Your task to perform on an android device: Open the Play Movies app and select the watchlist tab. Image 0: 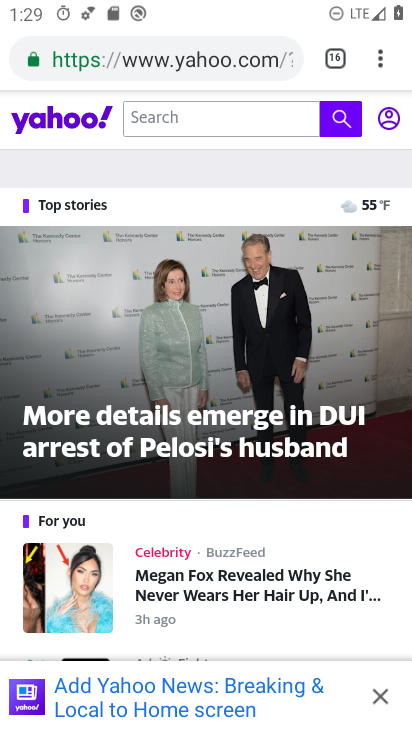
Step 0: press home button
Your task to perform on an android device: Open the Play Movies app and select the watchlist tab. Image 1: 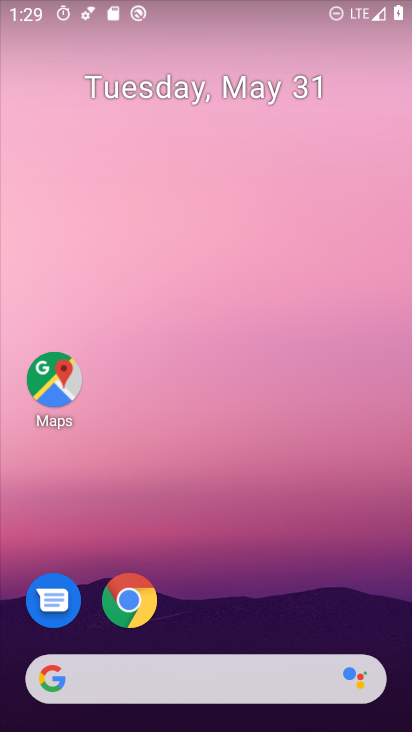
Step 1: drag from (245, 725) to (244, 210)
Your task to perform on an android device: Open the Play Movies app and select the watchlist tab. Image 2: 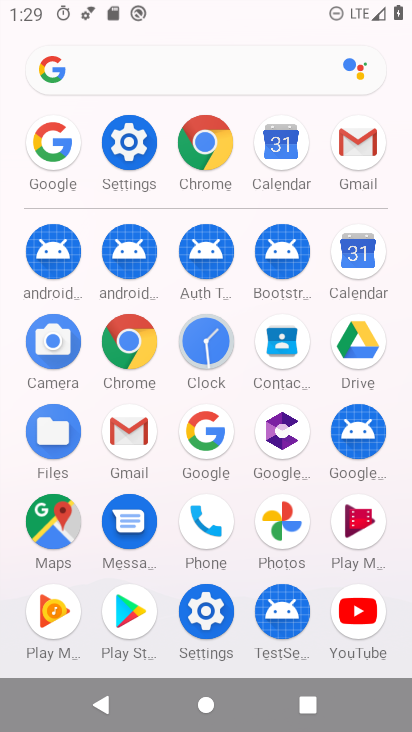
Step 2: click (359, 521)
Your task to perform on an android device: Open the Play Movies app and select the watchlist tab. Image 3: 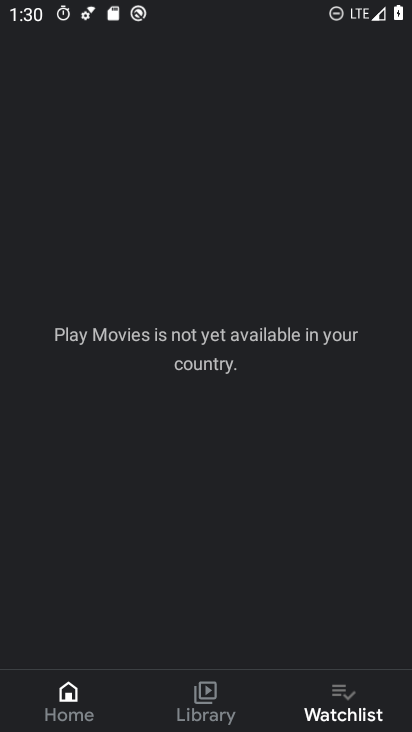
Step 3: task complete